Your task to perform on an android device: clear history in the chrome app Image 0: 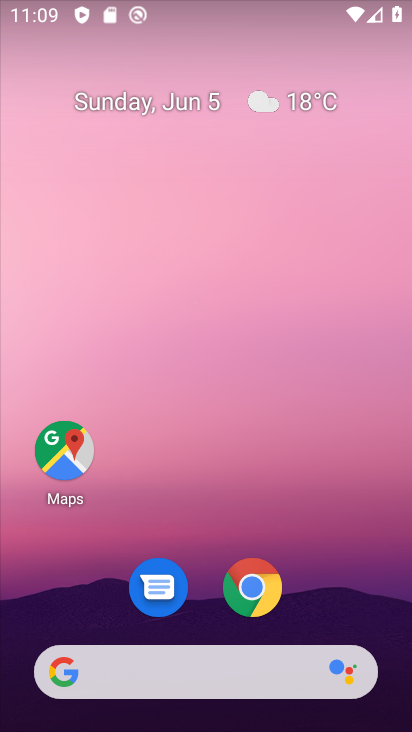
Step 0: click (246, 580)
Your task to perform on an android device: clear history in the chrome app Image 1: 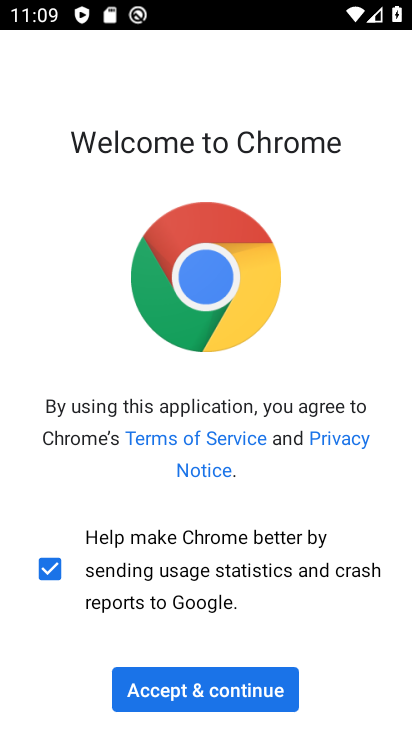
Step 1: click (261, 680)
Your task to perform on an android device: clear history in the chrome app Image 2: 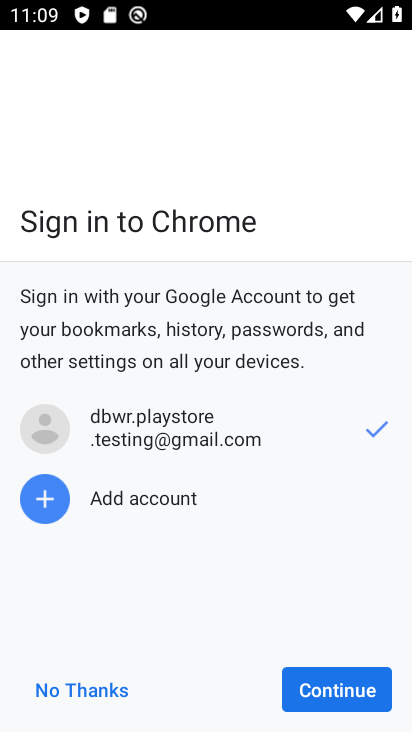
Step 2: click (261, 680)
Your task to perform on an android device: clear history in the chrome app Image 3: 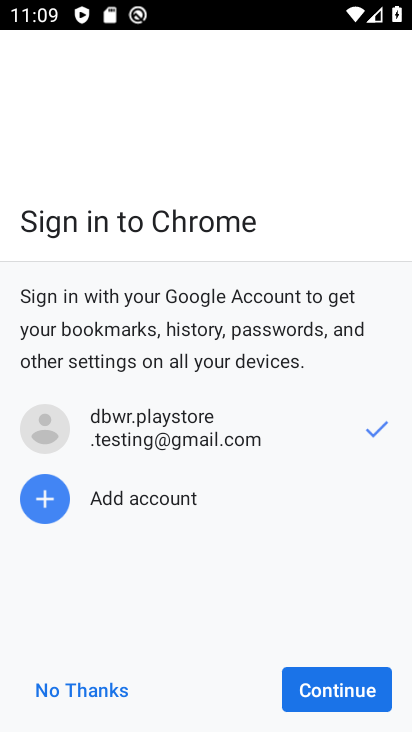
Step 3: click (302, 699)
Your task to perform on an android device: clear history in the chrome app Image 4: 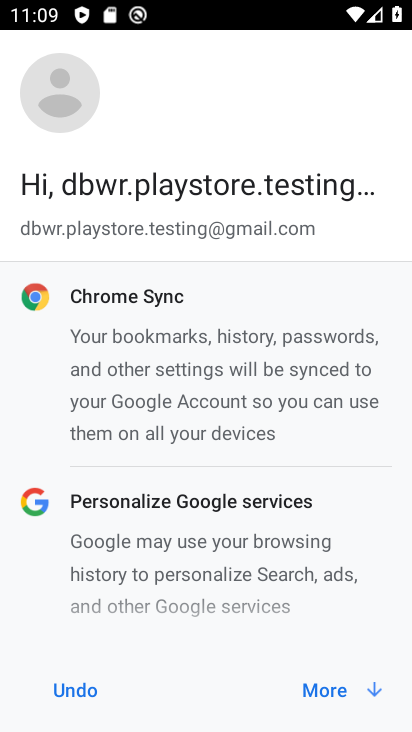
Step 4: click (326, 702)
Your task to perform on an android device: clear history in the chrome app Image 5: 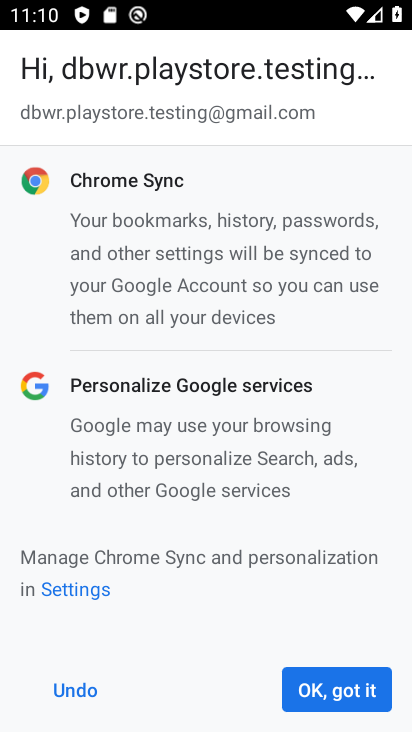
Step 5: click (326, 702)
Your task to perform on an android device: clear history in the chrome app Image 6: 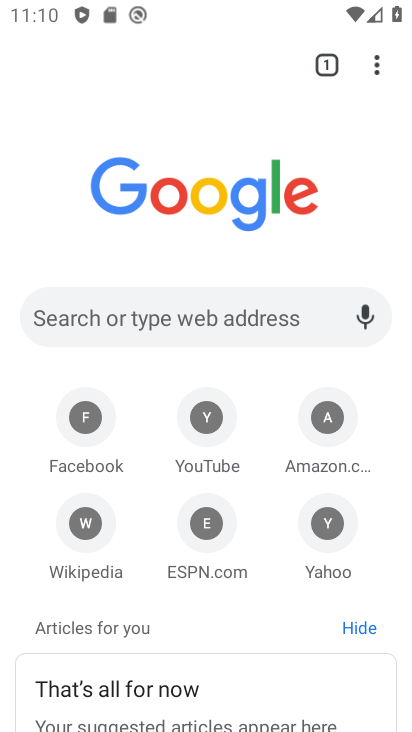
Step 6: click (380, 68)
Your task to perform on an android device: clear history in the chrome app Image 7: 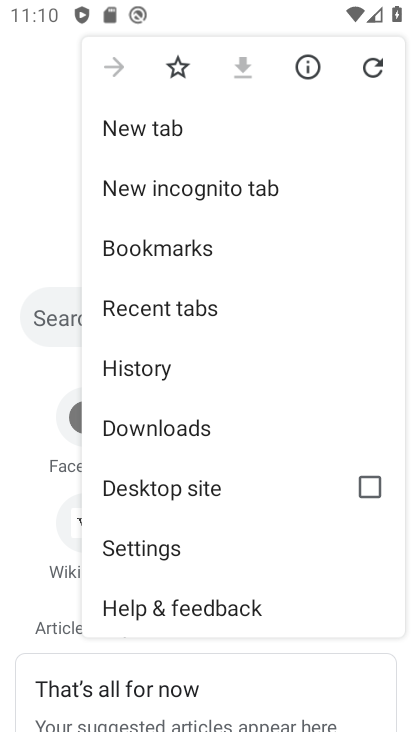
Step 7: click (182, 376)
Your task to perform on an android device: clear history in the chrome app Image 8: 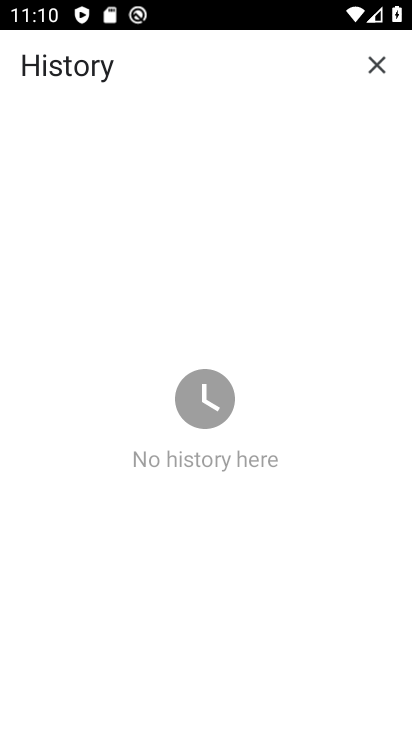
Step 8: task complete